Your task to perform on an android device: Do I have any events tomorrow? Image 0: 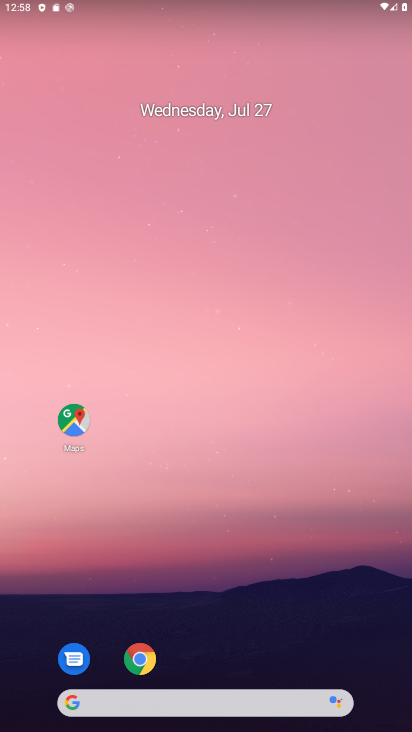
Step 0: drag from (291, 621) to (234, 3)
Your task to perform on an android device: Do I have any events tomorrow? Image 1: 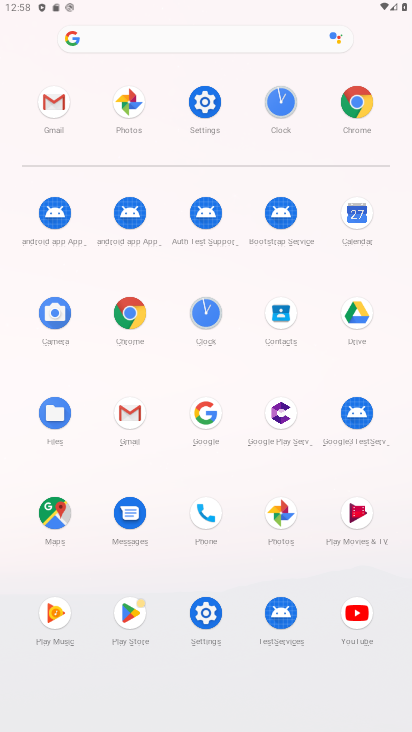
Step 1: click (352, 208)
Your task to perform on an android device: Do I have any events tomorrow? Image 2: 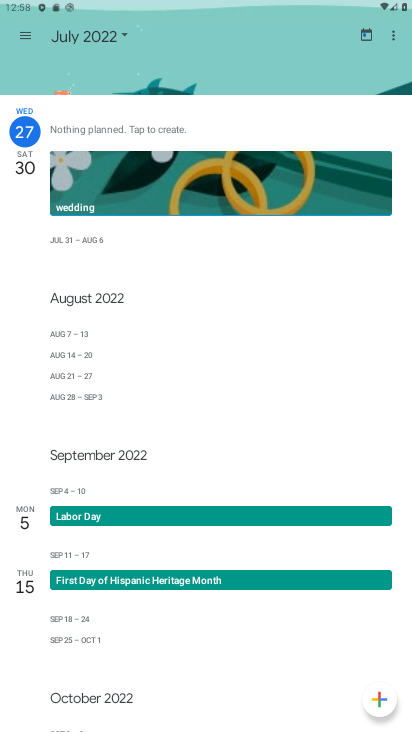
Step 2: click (88, 38)
Your task to perform on an android device: Do I have any events tomorrow? Image 3: 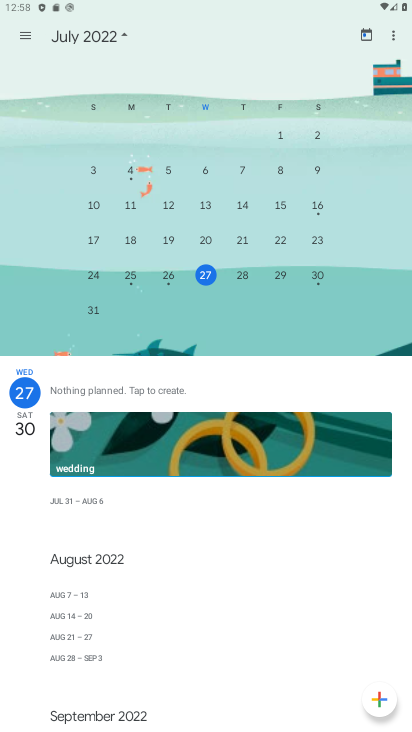
Step 3: click (232, 270)
Your task to perform on an android device: Do I have any events tomorrow? Image 4: 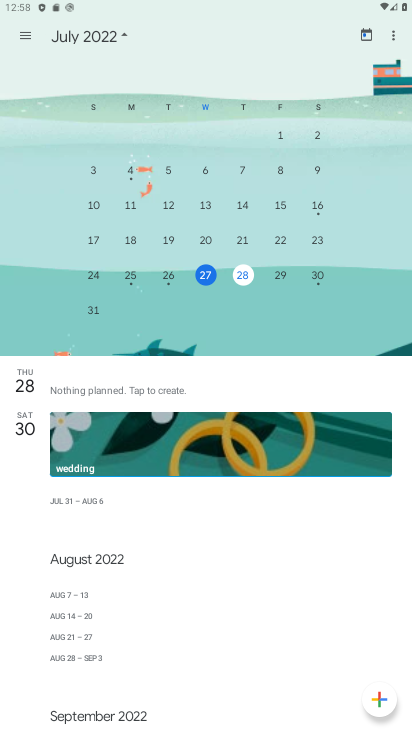
Step 4: task complete